Your task to perform on an android device: turn off improve location accuracy Image 0: 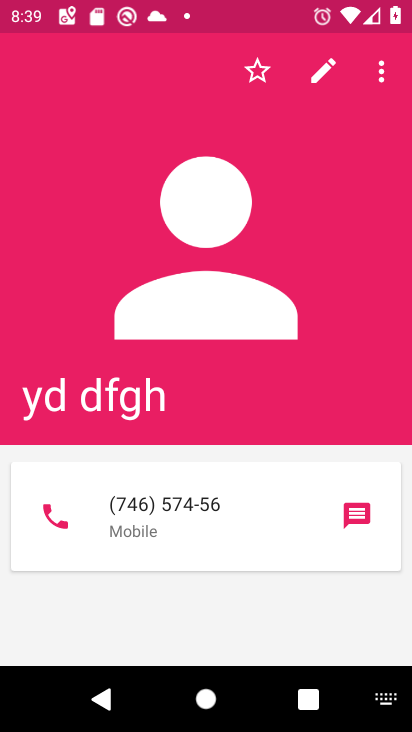
Step 0: press home button
Your task to perform on an android device: turn off improve location accuracy Image 1: 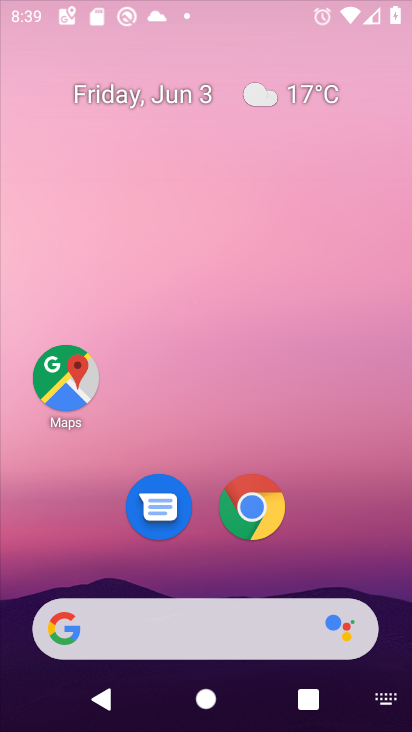
Step 1: drag from (337, 413) to (278, 6)
Your task to perform on an android device: turn off improve location accuracy Image 2: 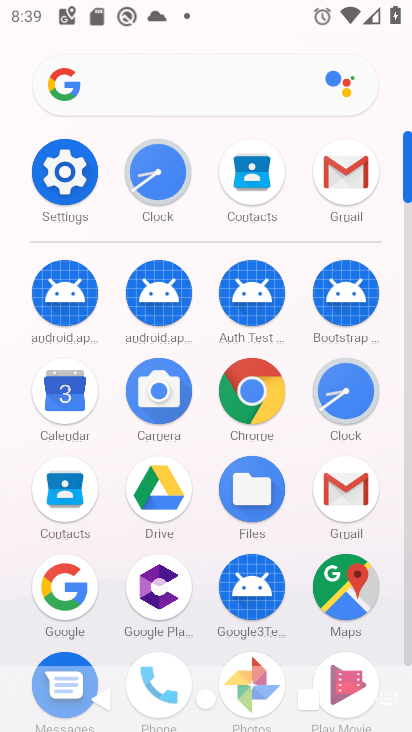
Step 2: click (70, 192)
Your task to perform on an android device: turn off improve location accuracy Image 3: 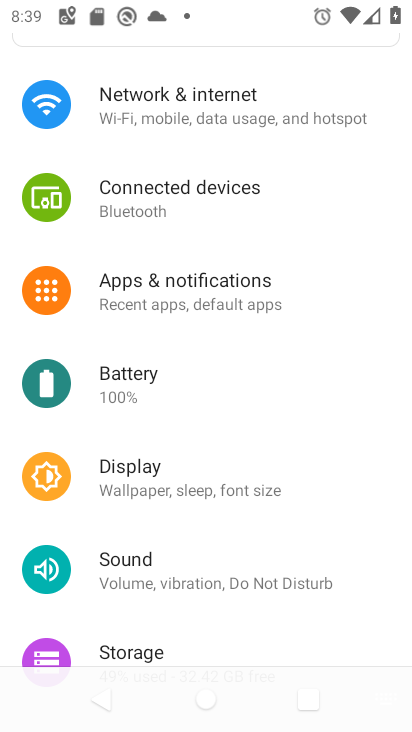
Step 3: drag from (254, 480) to (194, 154)
Your task to perform on an android device: turn off improve location accuracy Image 4: 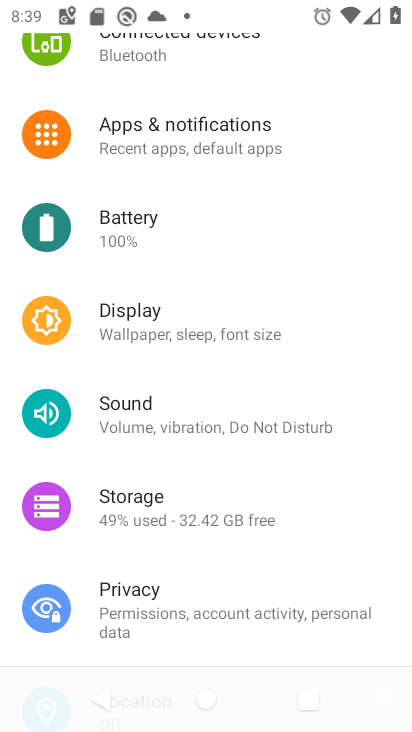
Step 4: drag from (246, 531) to (179, 112)
Your task to perform on an android device: turn off improve location accuracy Image 5: 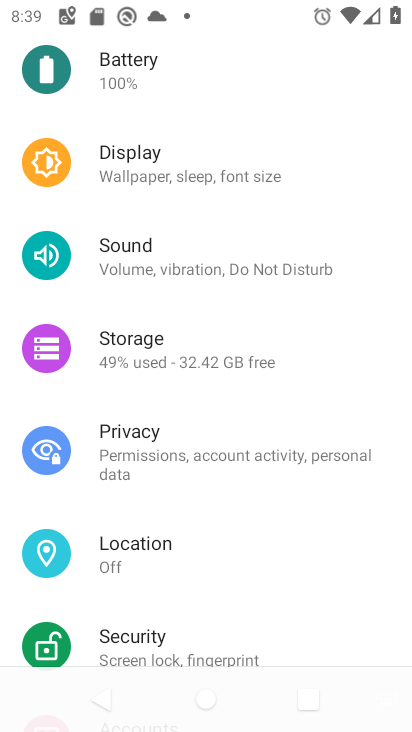
Step 5: click (181, 534)
Your task to perform on an android device: turn off improve location accuracy Image 6: 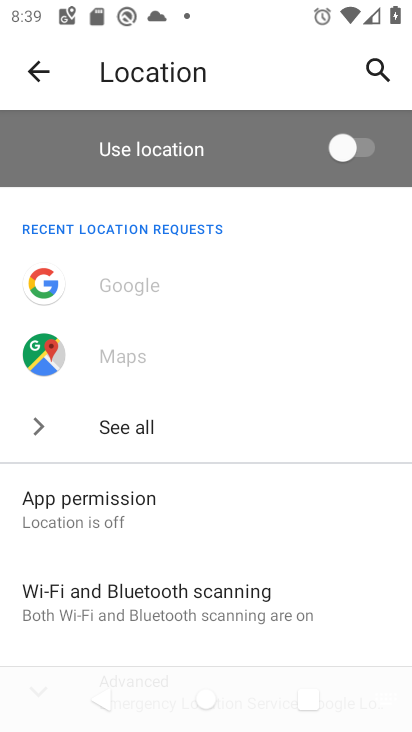
Step 6: drag from (182, 557) to (193, 188)
Your task to perform on an android device: turn off improve location accuracy Image 7: 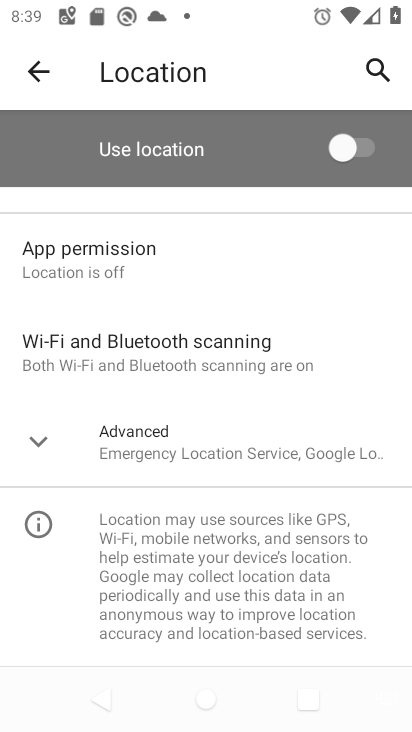
Step 7: click (203, 440)
Your task to perform on an android device: turn off improve location accuracy Image 8: 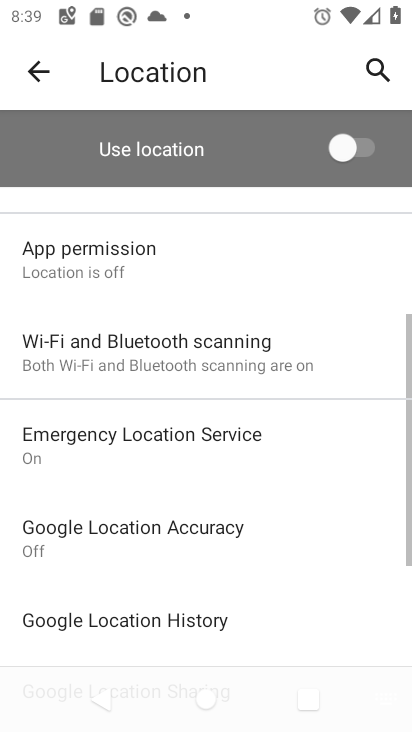
Step 8: click (287, 539)
Your task to perform on an android device: turn off improve location accuracy Image 9: 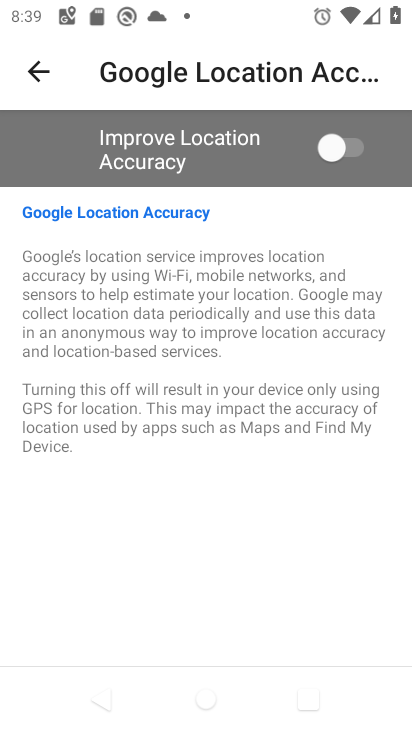
Step 9: task complete